Your task to perform on an android device: turn smart compose on in the gmail app Image 0: 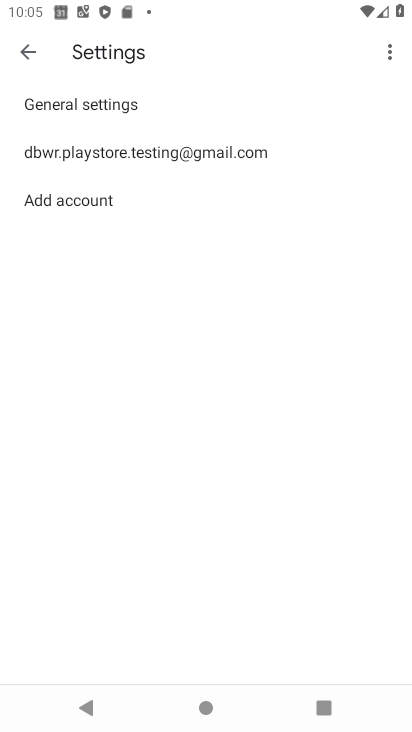
Step 0: press home button
Your task to perform on an android device: turn smart compose on in the gmail app Image 1: 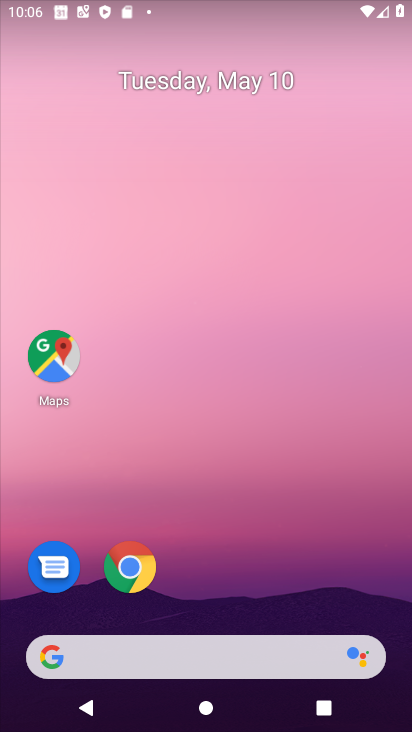
Step 1: drag from (1, 718) to (222, 159)
Your task to perform on an android device: turn smart compose on in the gmail app Image 2: 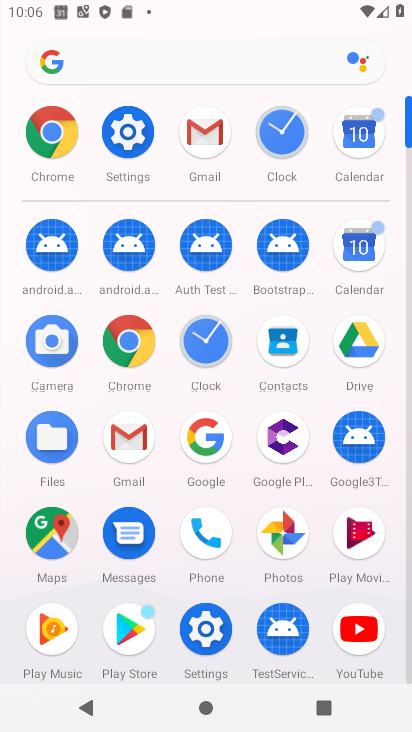
Step 2: click (202, 131)
Your task to perform on an android device: turn smart compose on in the gmail app Image 3: 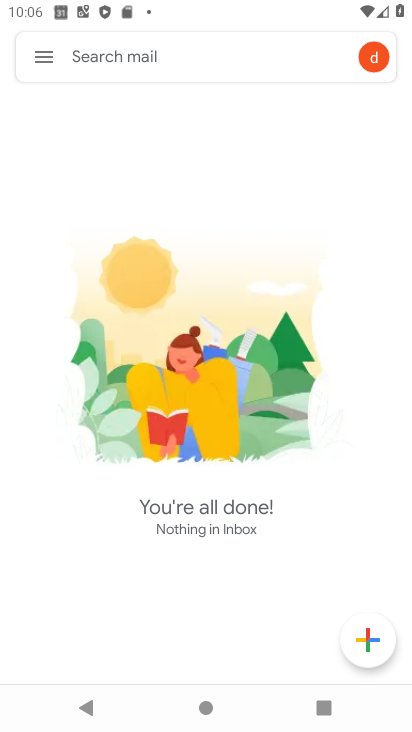
Step 3: click (48, 53)
Your task to perform on an android device: turn smart compose on in the gmail app Image 4: 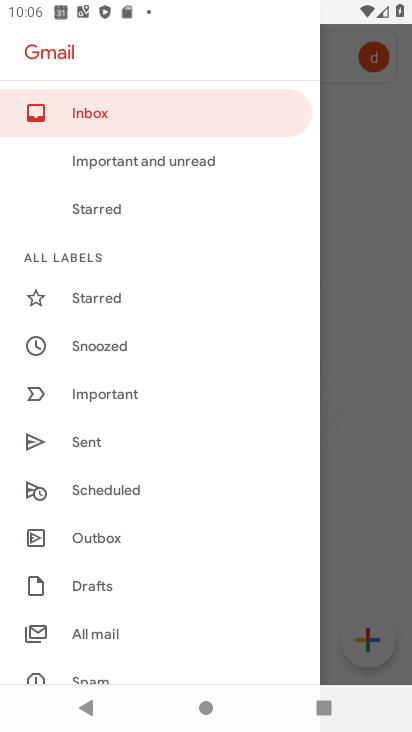
Step 4: drag from (123, 649) to (269, 212)
Your task to perform on an android device: turn smart compose on in the gmail app Image 5: 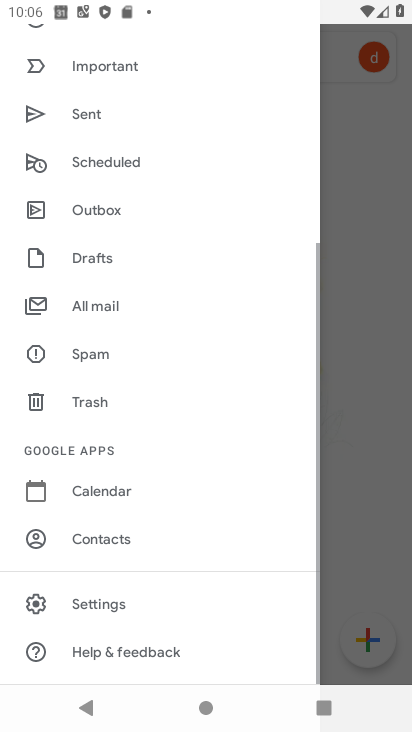
Step 5: click (92, 605)
Your task to perform on an android device: turn smart compose on in the gmail app Image 6: 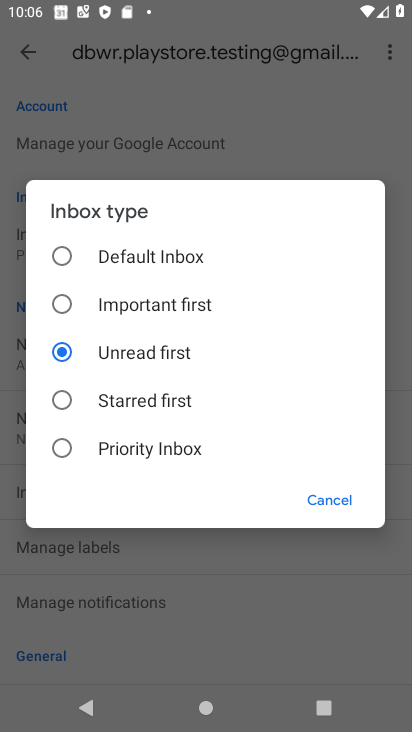
Step 6: click (325, 505)
Your task to perform on an android device: turn smart compose on in the gmail app Image 7: 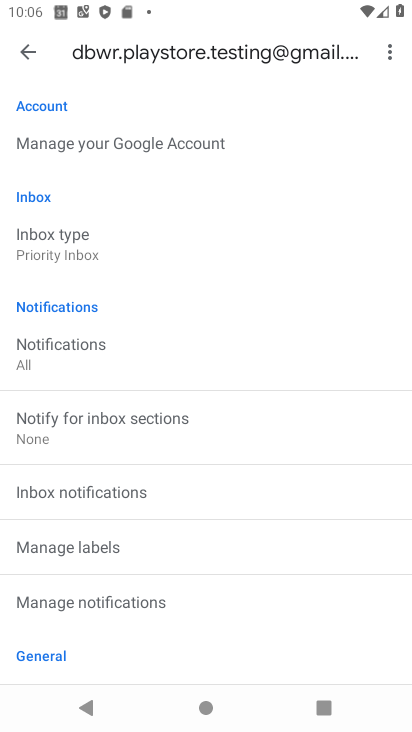
Step 7: task complete